Your task to perform on an android device: turn on translation in the chrome app Image 0: 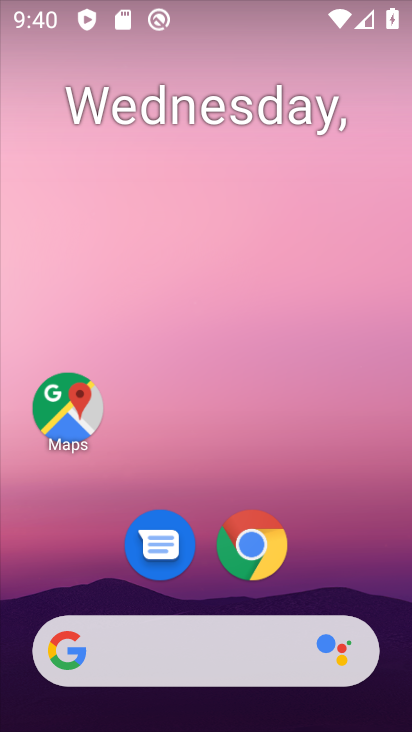
Step 0: click (262, 537)
Your task to perform on an android device: turn on translation in the chrome app Image 1: 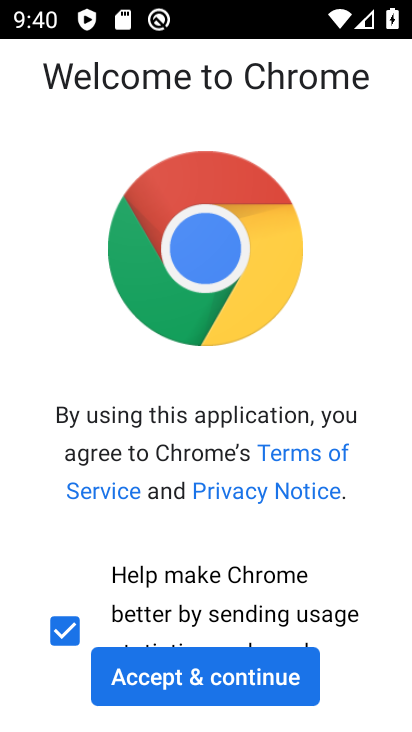
Step 1: click (239, 669)
Your task to perform on an android device: turn on translation in the chrome app Image 2: 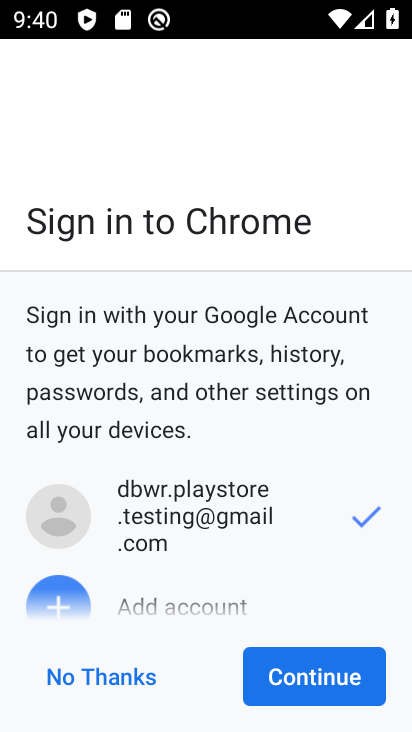
Step 2: click (276, 679)
Your task to perform on an android device: turn on translation in the chrome app Image 3: 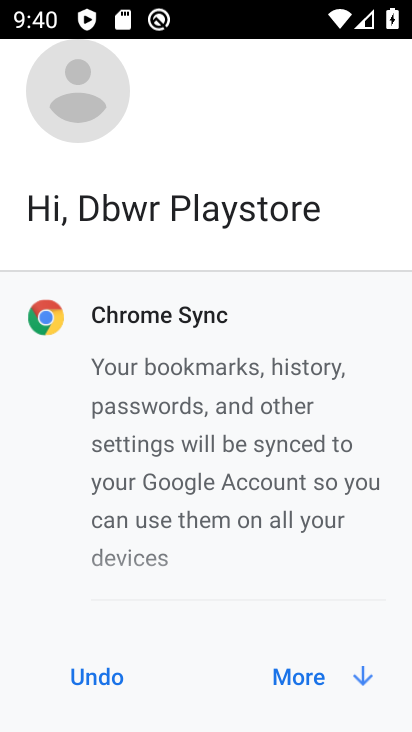
Step 3: click (311, 682)
Your task to perform on an android device: turn on translation in the chrome app Image 4: 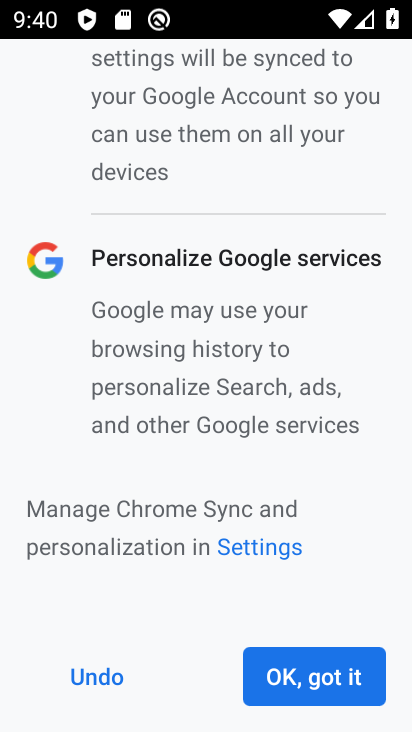
Step 4: click (311, 682)
Your task to perform on an android device: turn on translation in the chrome app Image 5: 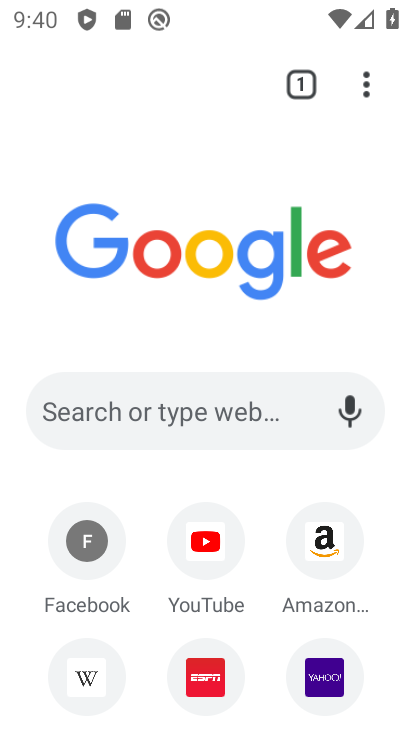
Step 5: click (364, 80)
Your task to perform on an android device: turn on translation in the chrome app Image 6: 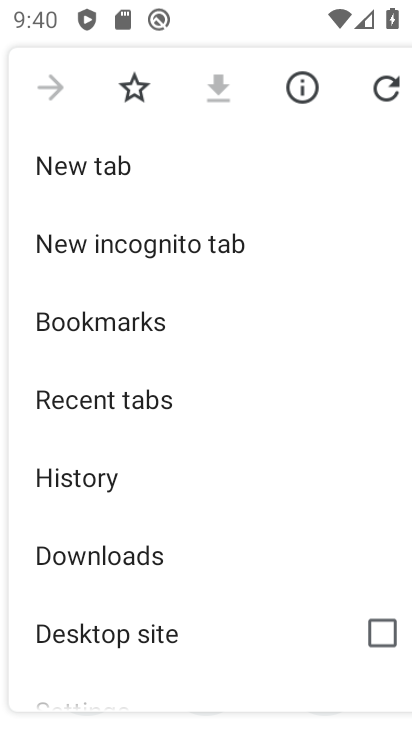
Step 6: drag from (212, 556) to (230, 185)
Your task to perform on an android device: turn on translation in the chrome app Image 7: 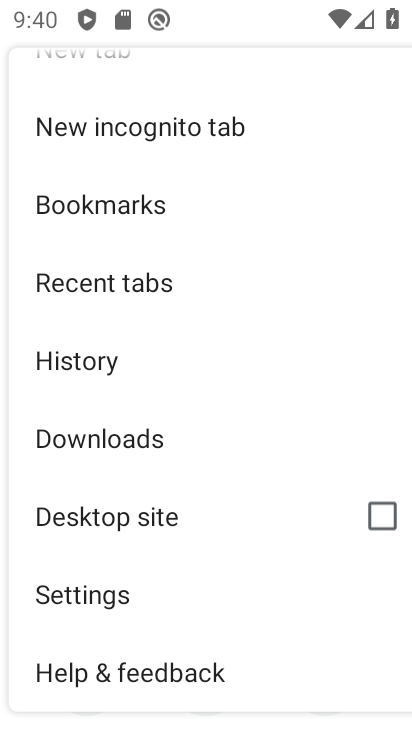
Step 7: click (176, 593)
Your task to perform on an android device: turn on translation in the chrome app Image 8: 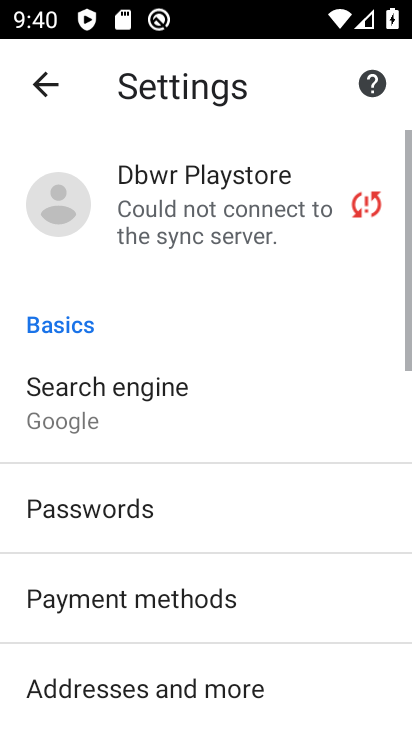
Step 8: drag from (286, 611) to (279, 204)
Your task to perform on an android device: turn on translation in the chrome app Image 9: 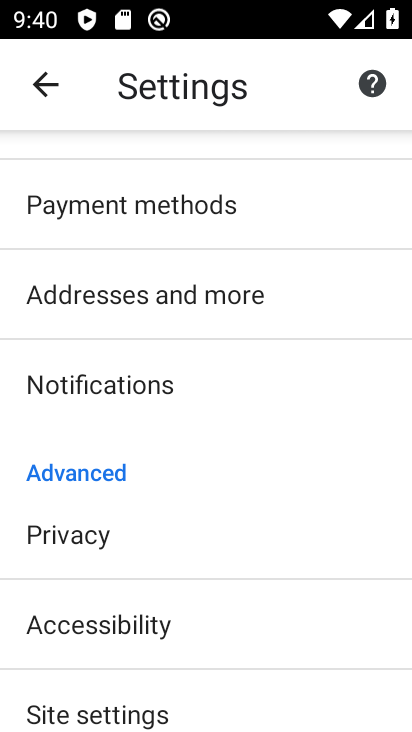
Step 9: drag from (221, 586) to (239, 254)
Your task to perform on an android device: turn on translation in the chrome app Image 10: 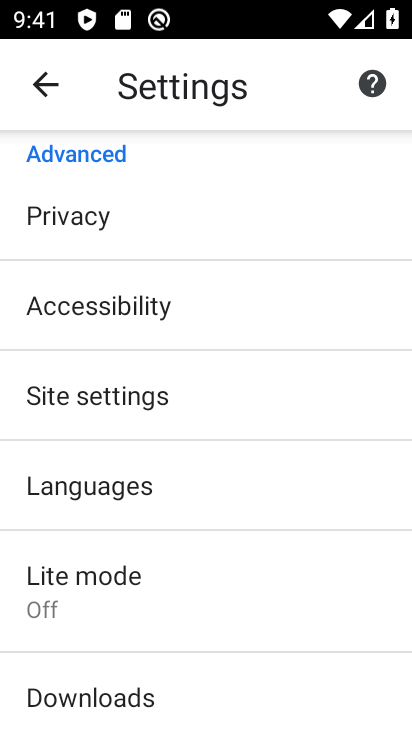
Step 10: click (222, 487)
Your task to perform on an android device: turn on translation in the chrome app Image 11: 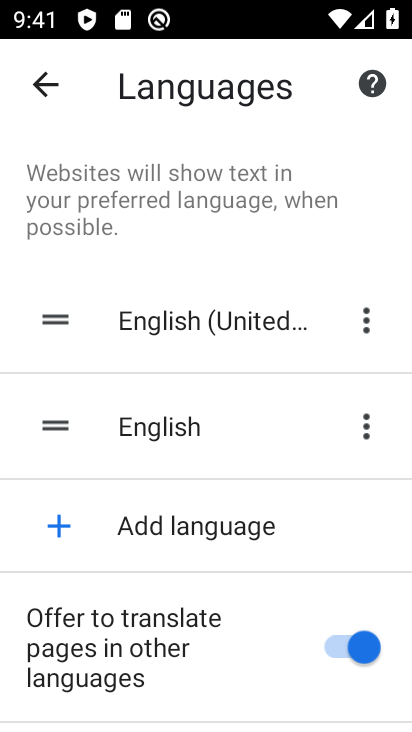
Step 11: task complete